Your task to perform on an android device: Go to calendar. Show me events next week Image 0: 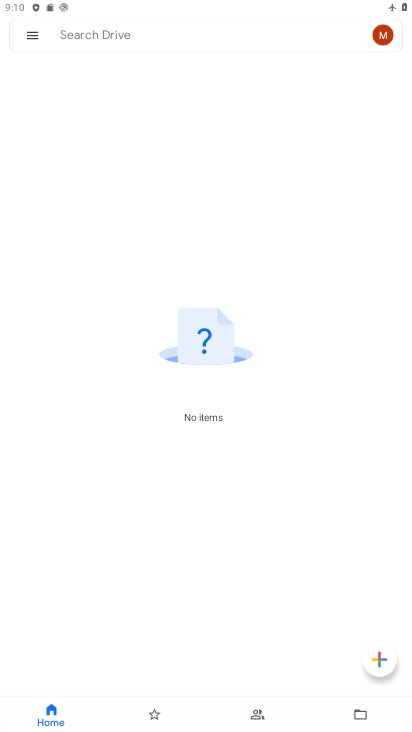
Step 0: press home button
Your task to perform on an android device: Go to calendar. Show me events next week Image 1: 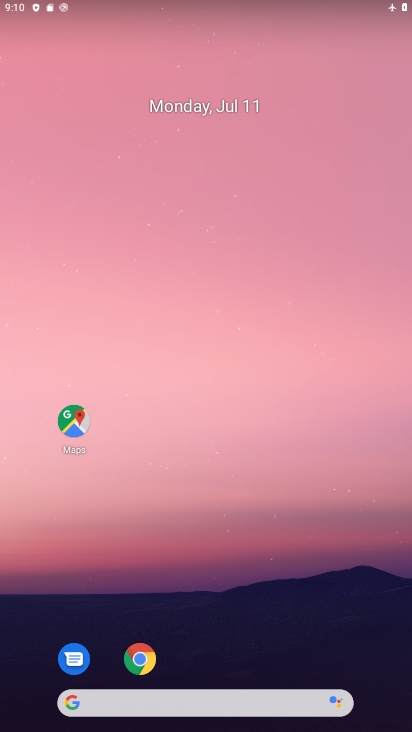
Step 1: drag from (203, 650) to (211, 128)
Your task to perform on an android device: Go to calendar. Show me events next week Image 2: 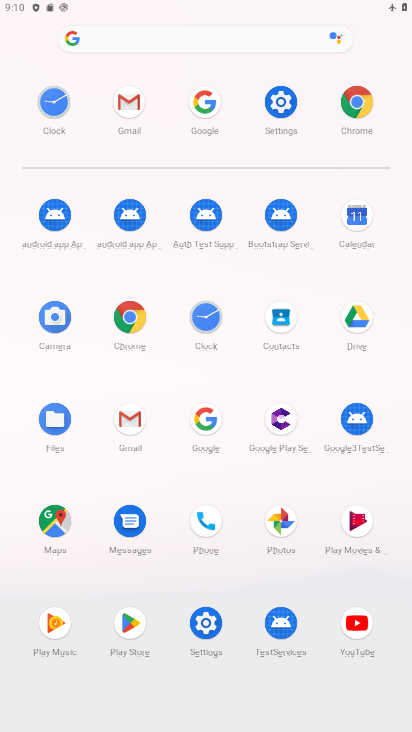
Step 2: click (351, 236)
Your task to perform on an android device: Go to calendar. Show me events next week Image 3: 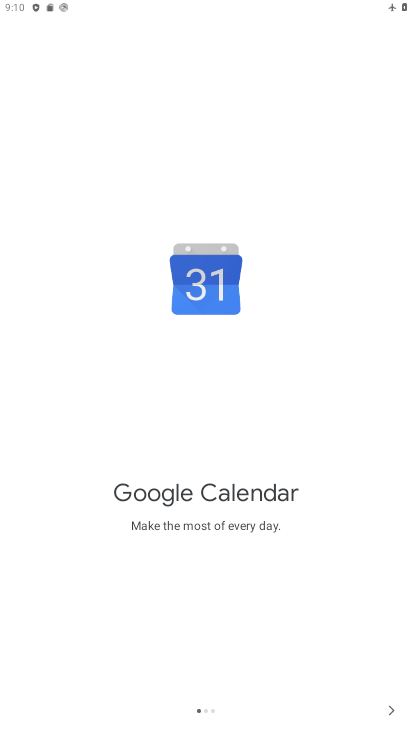
Step 3: click (386, 705)
Your task to perform on an android device: Go to calendar. Show me events next week Image 4: 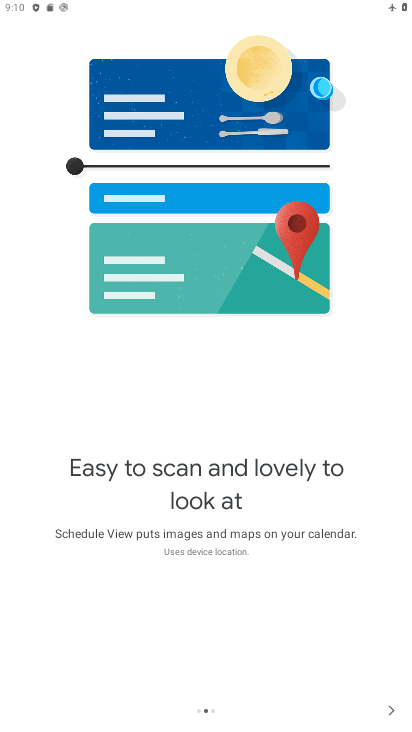
Step 4: click (386, 705)
Your task to perform on an android device: Go to calendar. Show me events next week Image 5: 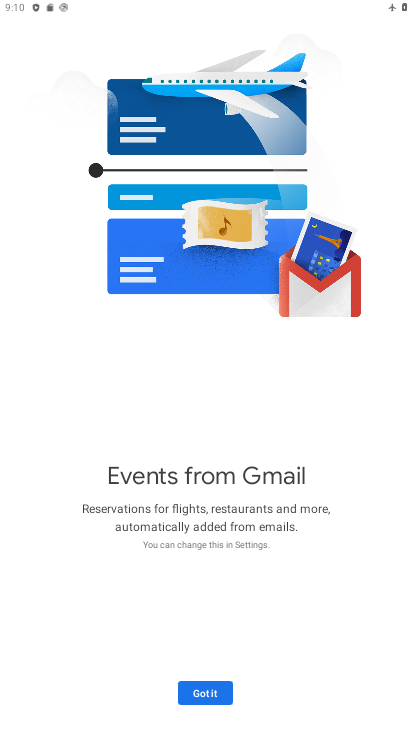
Step 5: click (386, 705)
Your task to perform on an android device: Go to calendar. Show me events next week Image 6: 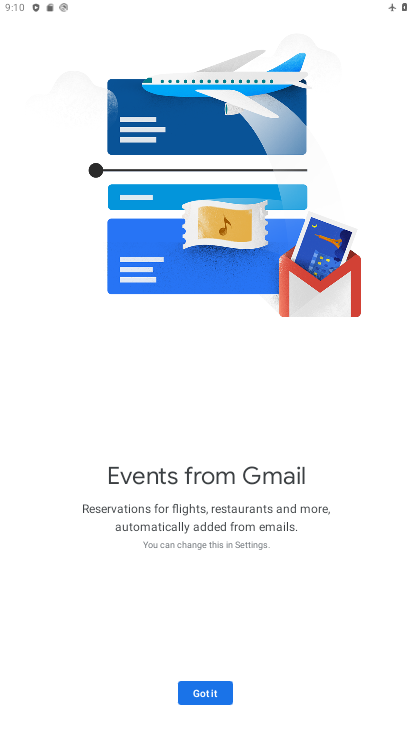
Step 6: click (215, 700)
Your task to perform on an android device: Go to calendar. Show me events next week Image 7: 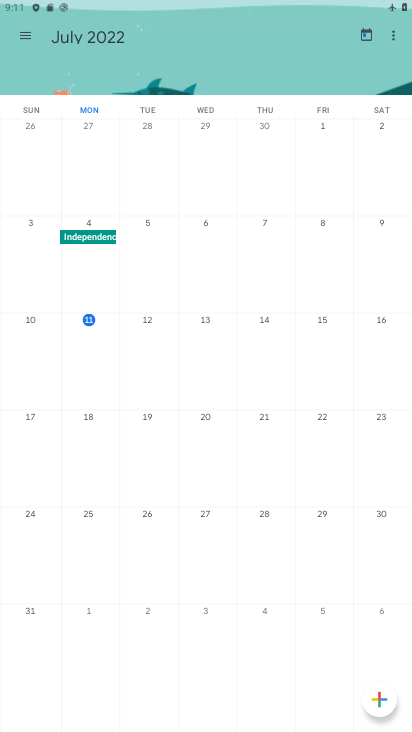
Step 7: click (25, 36)
Your task to perform on an android device: Go to calendar. Show me events next week Image 8: 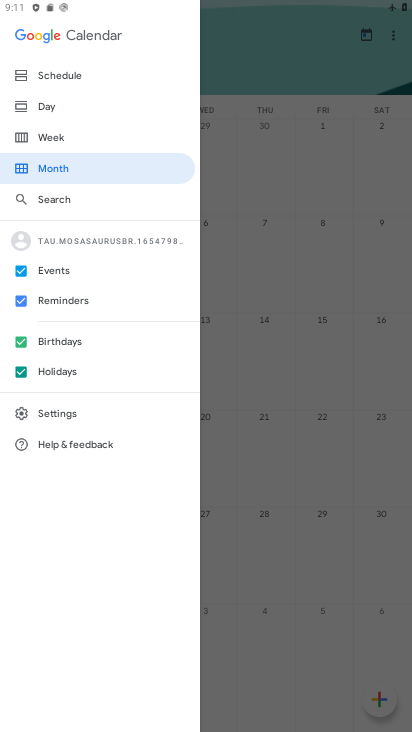
Step 8: click (73, 75)
Your task to perform on an android device: Go to calendar. Show me events next week Image 9: 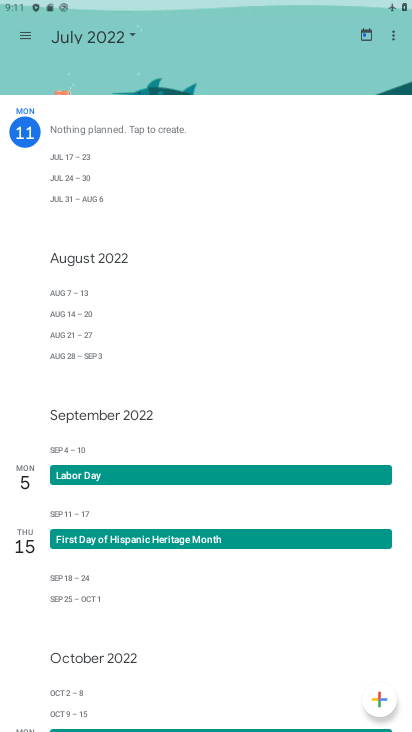
Step 9: task complete